Your task to perform on an android device: check out phone information Image 0: 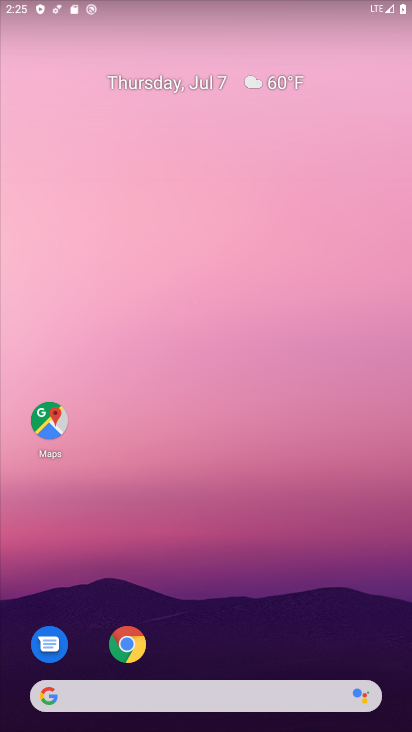
Step 0: drag from (200, 689) to (216, 357)
Your task to perform on an android device: check out phone information Image 1: 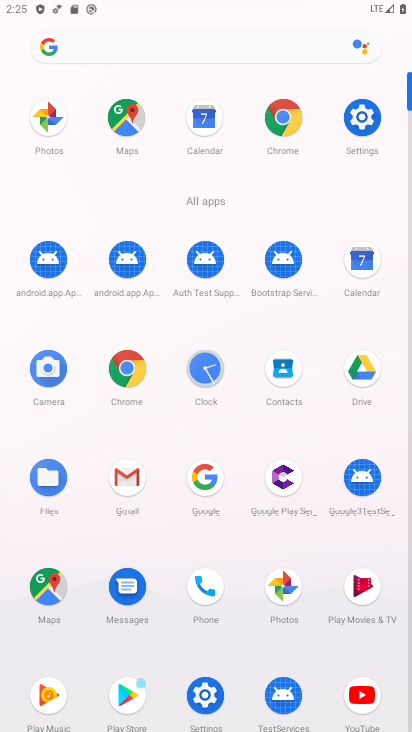
Step 1: click (369, 122)
Your task to perform on an android device: check out phone information Image 2: 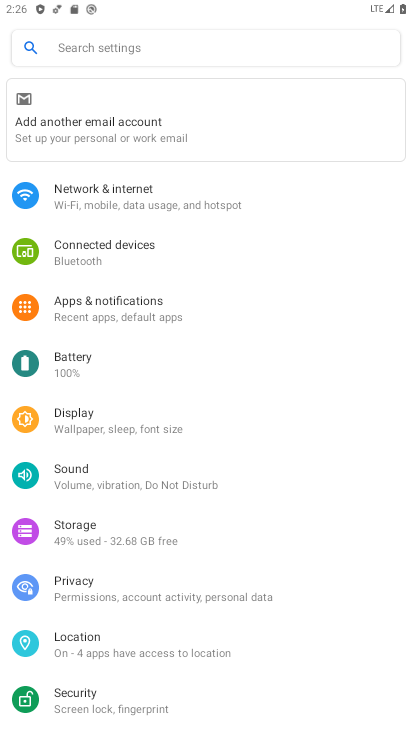
Step 2: drag from (204, 645) to (257, 134)
Your task to perform on an android device: check out phone information Image 3: 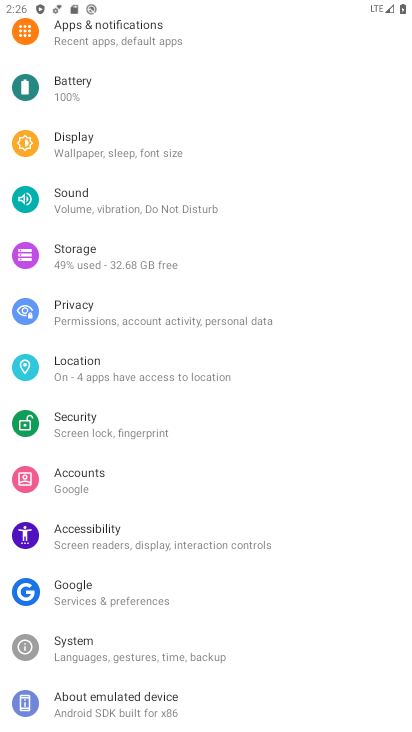
Step 3: click (162, 697)
Your task to perform on an android device: check out phone information Image 4: 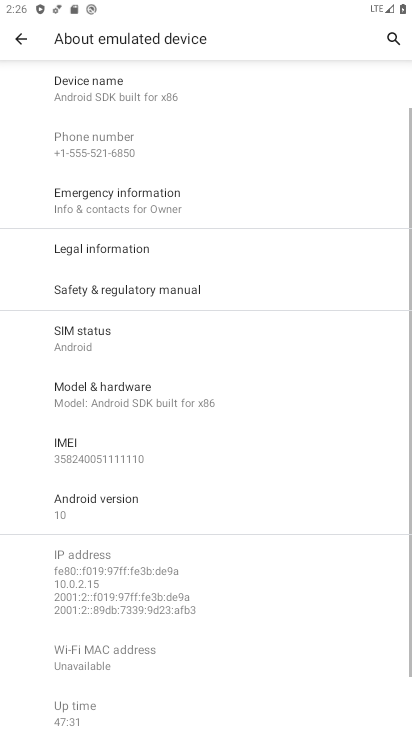
Step 4: task complete